Your task to perform on an android device: Open sound settings Image 0: 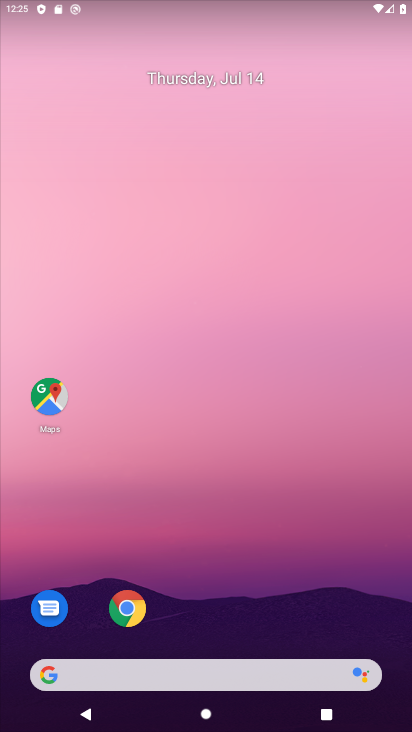
Step 0: drag from (182, 636) to (224, 96)
Your task to perform on an android device: Open sound settings Image 1: 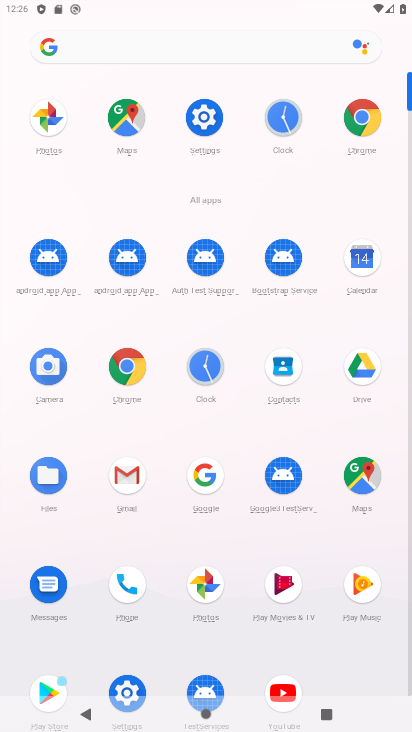
Step 1: click (203, 111)
Your task to perform on an android device: Open sound settings Image 2: 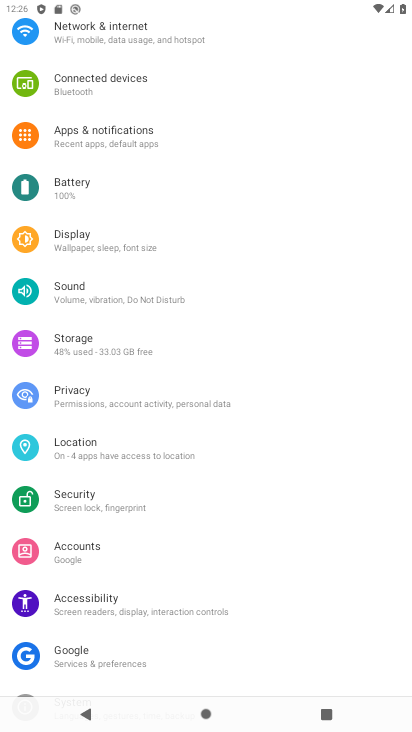
Step 2: click (132, 287)
Your task to perform on an android device: Open sound settings Image 3: 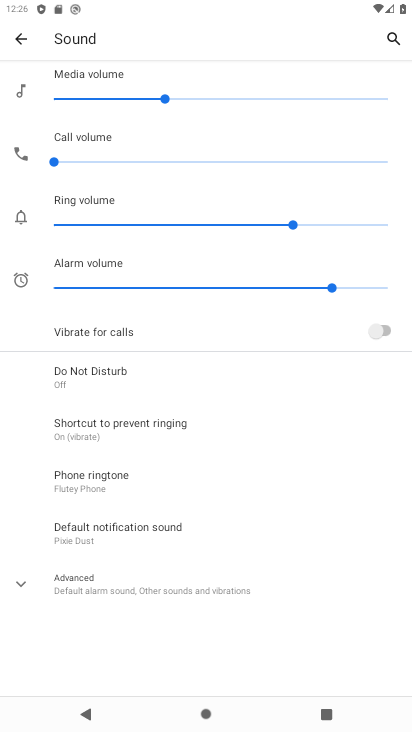
Step 3: task complete